Your task to perform on an android device: Show me recent news Image 0: 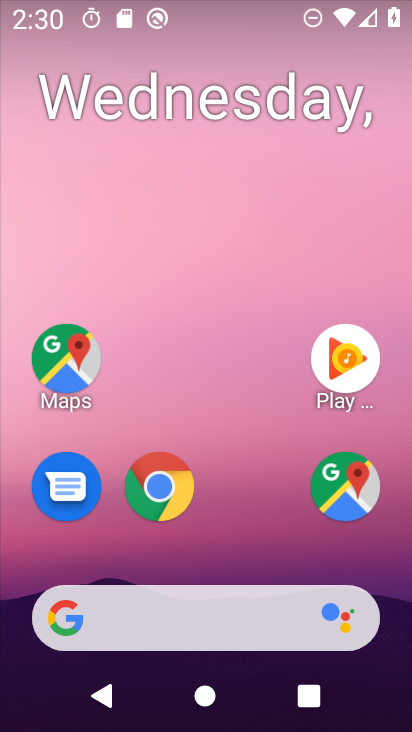
Step 0: press home button
Your task to perform on an android device: Show me recent news Image 1: 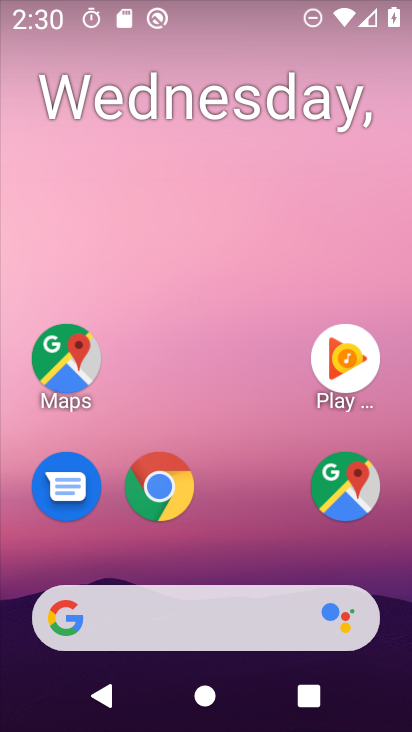
Step 1: task complete